Your task to perform on an android device: Toggle the flashlight Image 0: 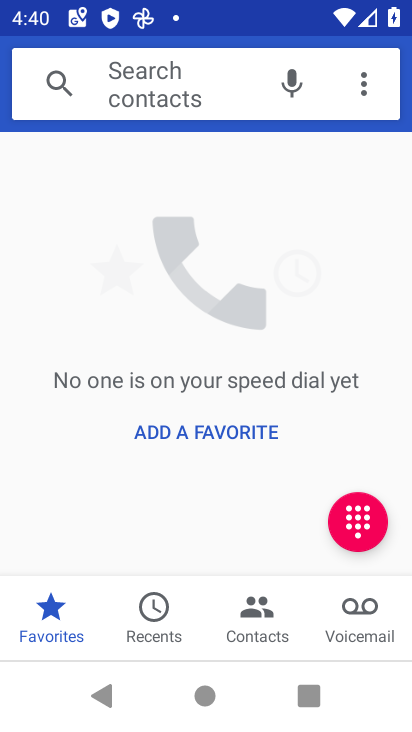
Step 0: drag from (221, 549) to (269, 95)
Your task to perform on an android device: Toggle the flashlight Image 1: 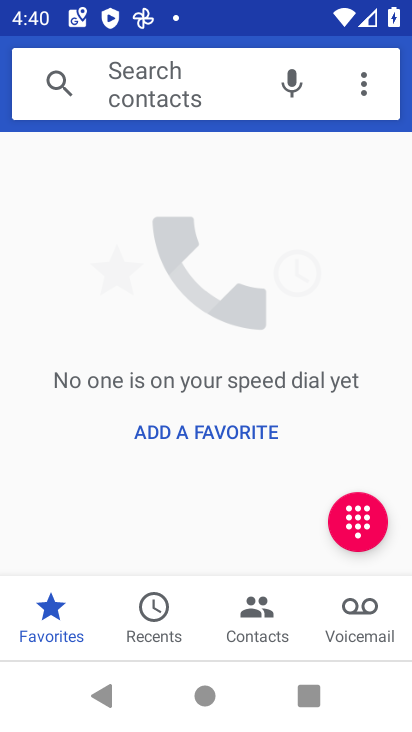
Step 1: click (355, 94)
Your task to perform on an android device: Toggle the flashlight Image 2: 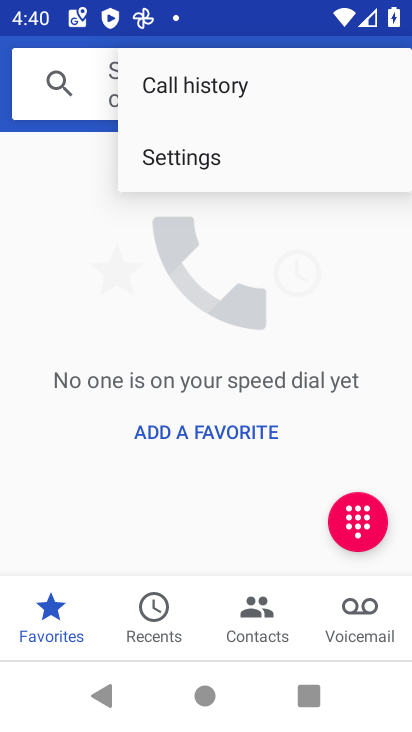
Step 2: press home button
Your task to perform on an android device: Toggle the flashlight Image 3: 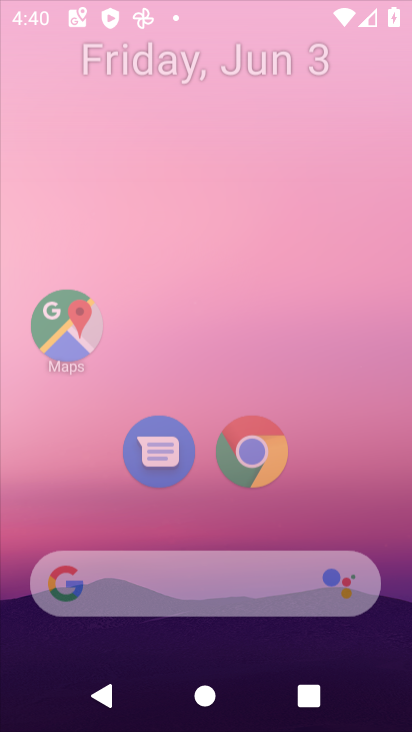
Step 3: drag from (171, 517) to (235, 9)
Your task to perform on an android device: Toggle the flashlight Image 4: 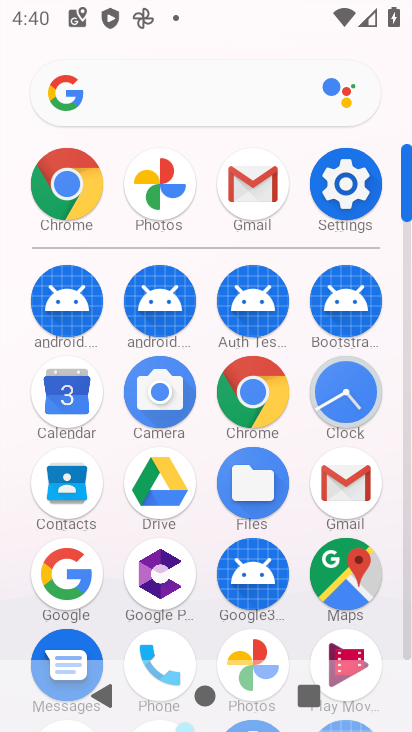
Step 4: click (358, 179)
Your task to perform on an android device: Toggle the flashlight Image 5: 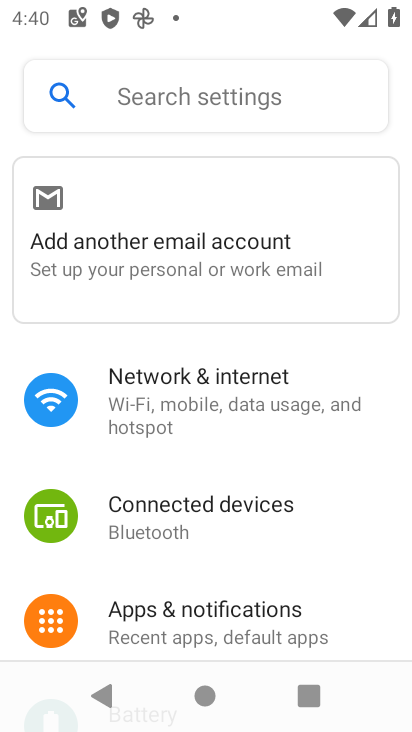
Step 5: drag from (209, 502) to (279, 189)
Your task to perform on an android device: Toggle the flashlight Image 6: 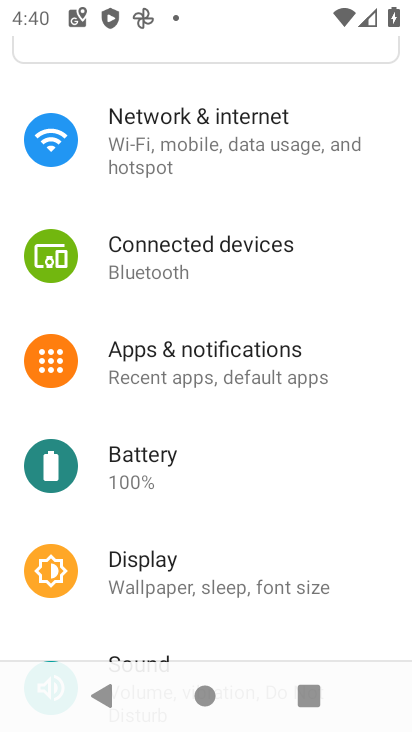
Step 6: drag from (281, 159) to (307, 607)
Your task to perform on an android device: Toggle the flashlight Image 7: 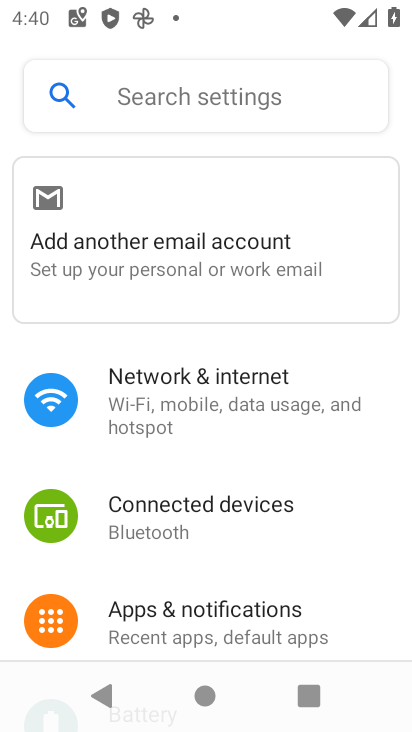
Step 7: click (162, 96)
Your task to perform on an android device: Toggle the flashlight Image 8: 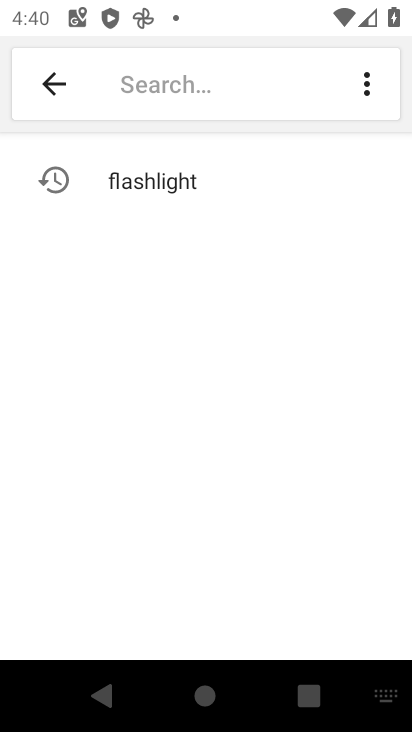
Step 8: click (166, 187)
Your task to perform on an android device: Toggle the flashlight Image 9: 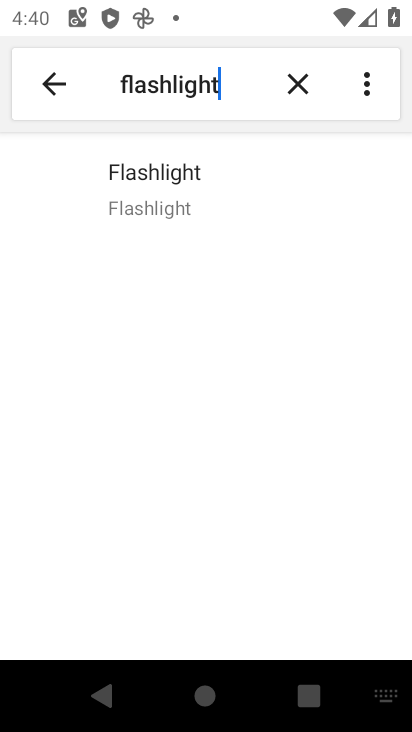
Step 9: click (165, 176)
Your task to perform on an android device: Toggle the flashlight Image 10: 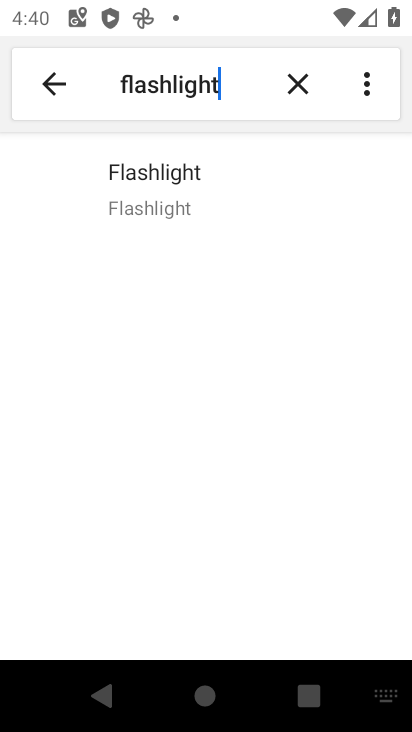
Step 10: task complete